Your task to perform on an android device: Open the calendar and show me this week's events Image 0: 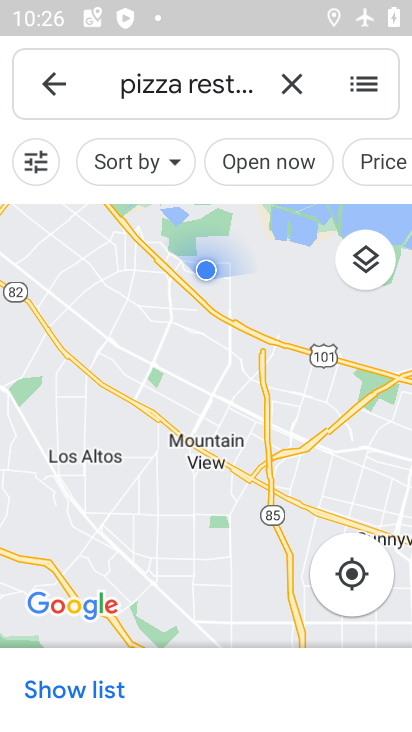
Step 0: press home button
Your task to perform on an android device: Open the calendar and show me this week's events Image 1: 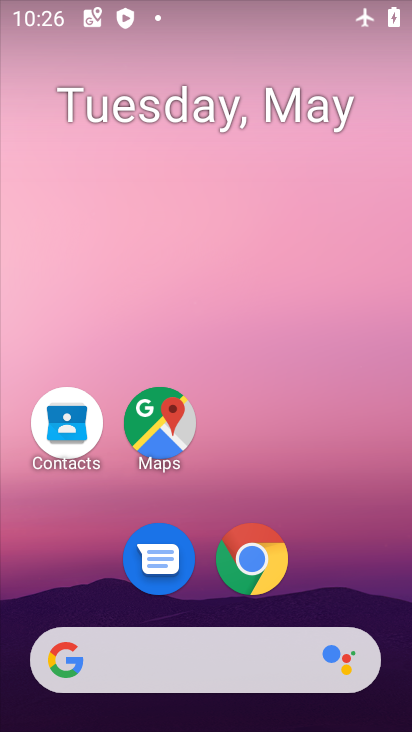
Step 1: drag from (324, 541) to (225, 172)
Your task to perform on an android device: Open the calendar and show me this week's events Image 2: 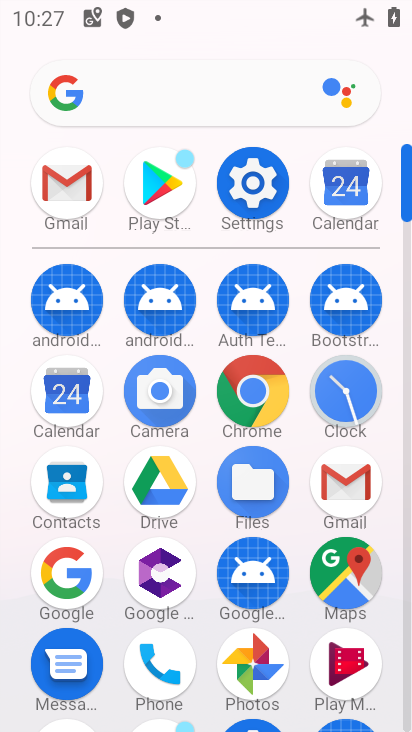
Step 2: click (85, 382)
Your task to perform on an android device: Open the calendar and show me this week's events Image 3: 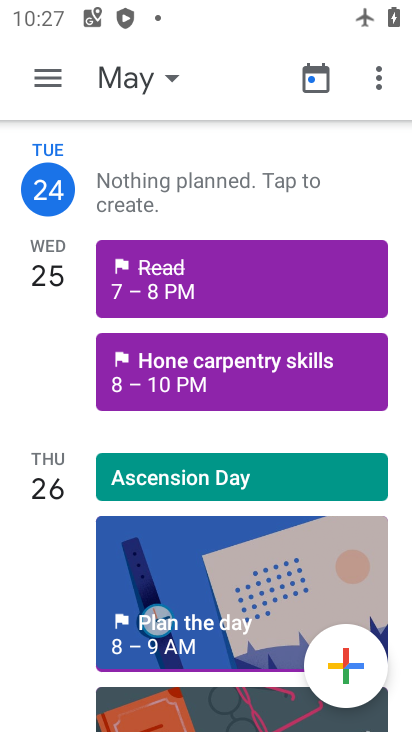
Step 3: task complete